Your task to perform on an android device: Open calendar and show me the second week of next month Image 0: 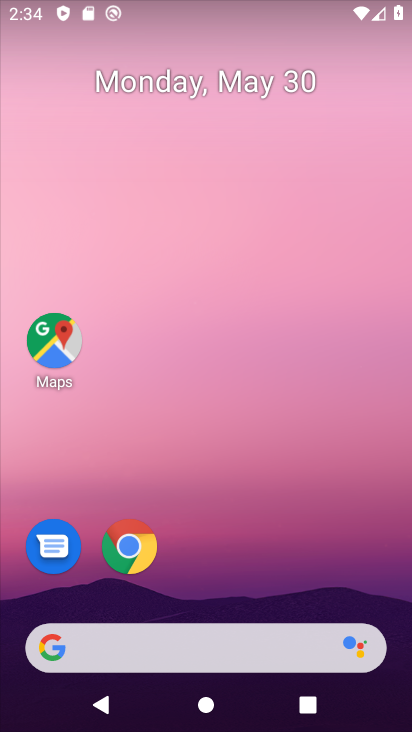
Step 0: drag from (281, 559) to (107, 45)
Your task to perform on an android device: Open calendar and show me the second week of next month Image 1: 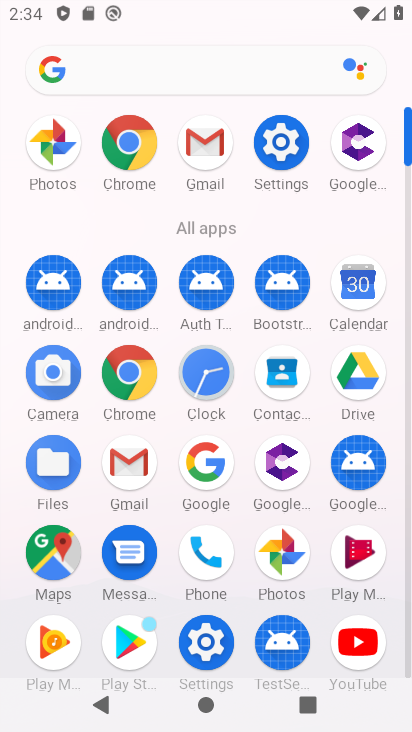
Step 1: click (366, 281)
Your task to perform on an android device: Open calendar and show me the second week of next month Image 2: 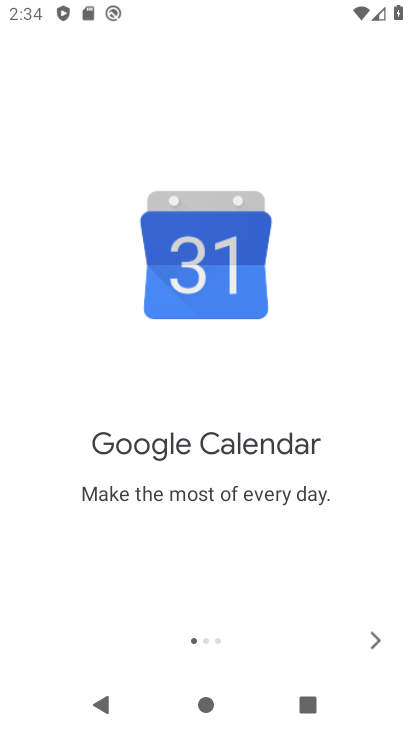
Step 2: click (379, 653)
Your task to perform on an android device: Open calendar and show me the second week of next month Image 3: 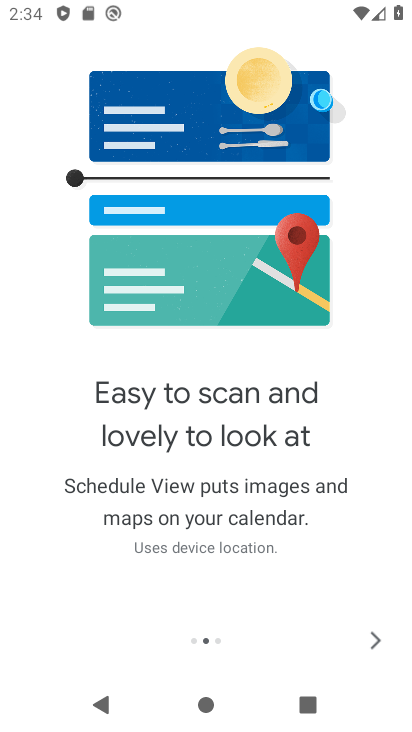
Step 3: click (373, 647)
Your task to perform on an android device: Open calendar and show me the second week of next month Image 4: 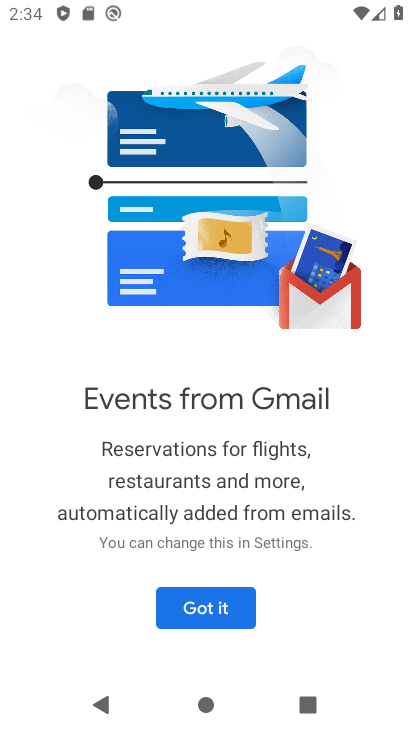
Step 4: click (181, 610)
Your task to perform on an android device: Open calendar and show me the second week of next month Image 5: 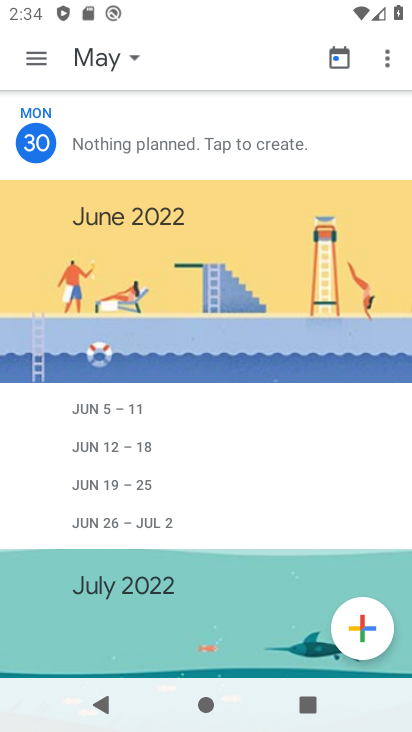
Step 5: click (32, 61)
Your task to perform on an android device: Open calendar and show me the second week of next month Image 6: 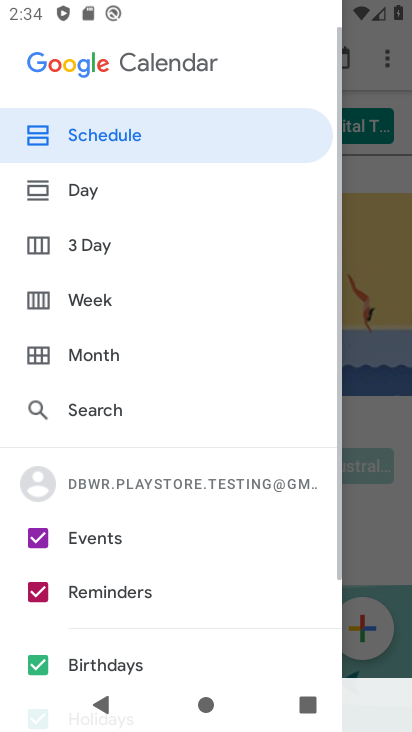
Step 6: click (390, 107)
Your task to perform on an android device: Open calendar and show me the second week of next month Image 7: 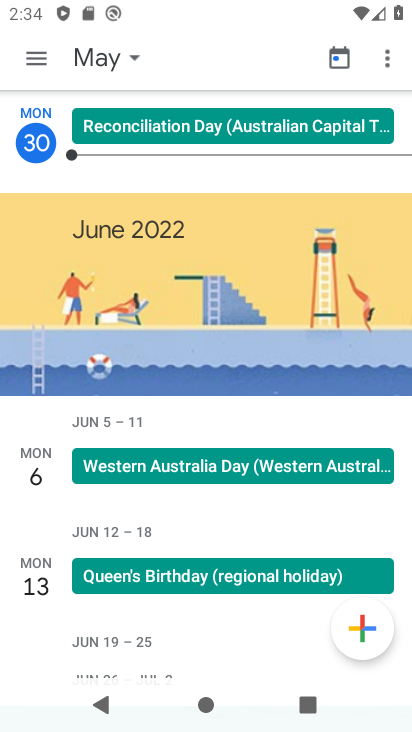
Step 7: click (98, 48)
Your task to perform on an android device: Open calendar and show me the second week of next month Image 8: 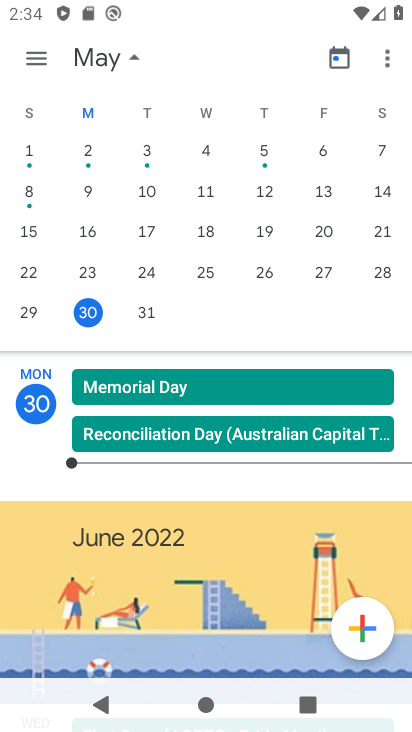
Step 8: drag from (374, 200) to (40, 214)
Your task to perform on an android device: Open calendar and show me the second week of next month Image 9: 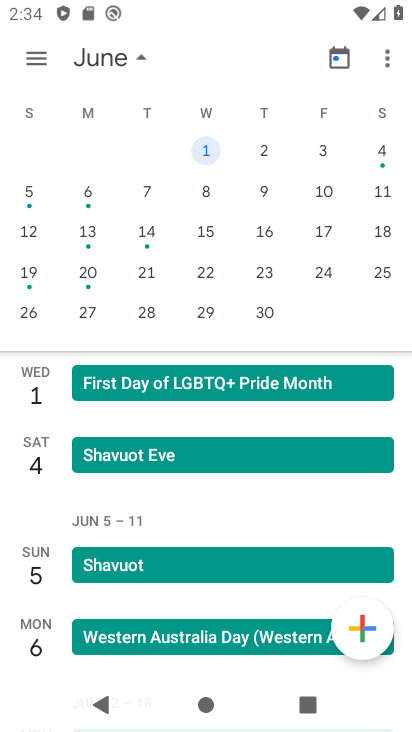
Step 9: click (32, 231)
Your task to perform on an android device: Open calendar and show me the second week of next month Image 10: 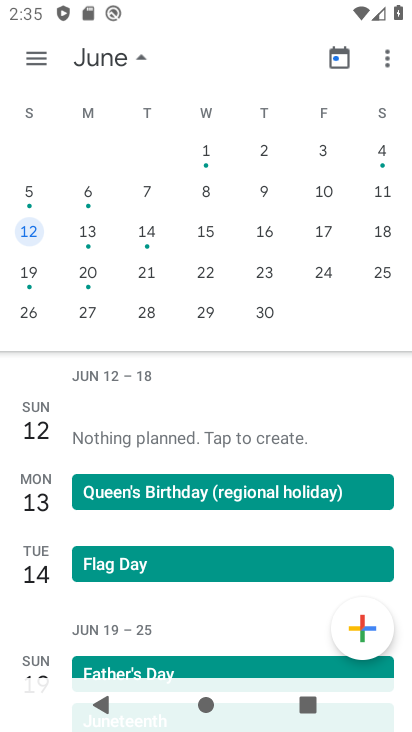
Step 10: task complete